Your task to perform on an android device: Find coffee shops on Maps Image 0: 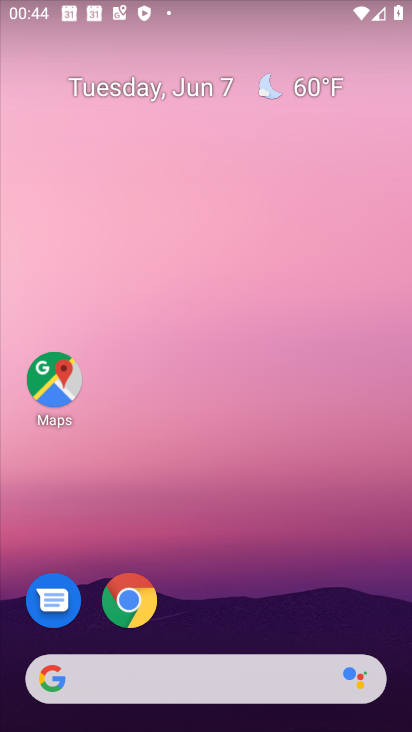
Step 0: drag from (219, 728) to (211, 223)
Your task to perform on an android device: Find coffee shops on Maps Image 1: 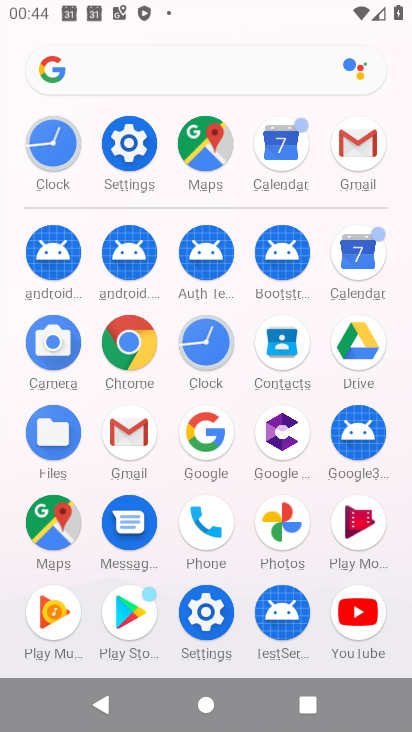
Step 1: click (59, 521)
Your task to perform on an android device: Find coffee shops on Maps Image 2: 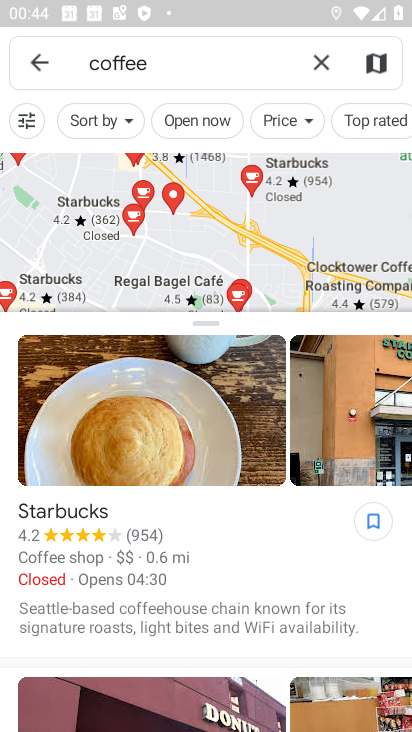
Step 2: click (186, 64)
Your task to perform on an android device: Find coffee shops on Maps Image 3: 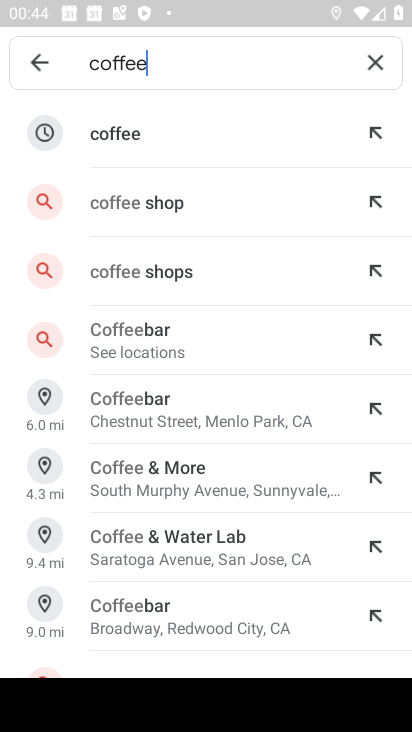
Step 3: type " shops"
Your task to perform on an android device: Find coffee shops on Maps Image 4: 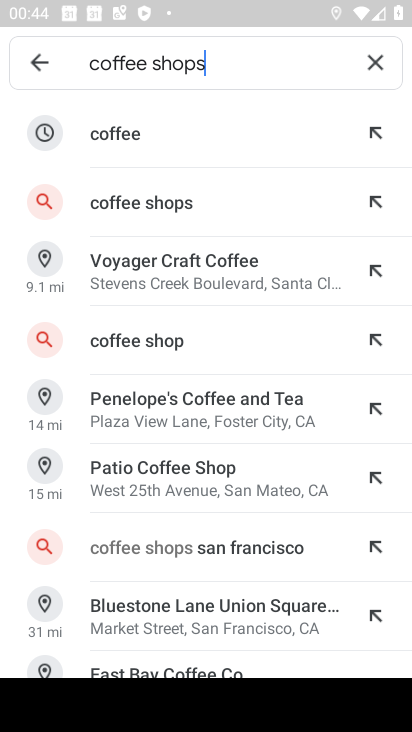
Step 4: click (153, 198)
Your task to perform on an android device: Find coffee shops on Maps Image 5: 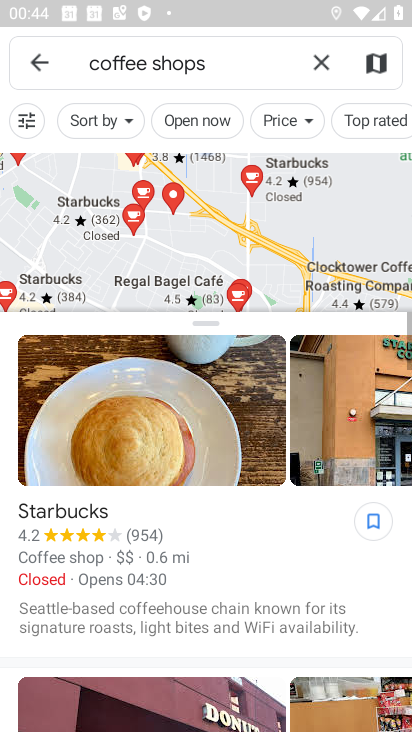
Step 5: task complete